Your task to perform on an android device: delete a single message in the gmail app Image 0: 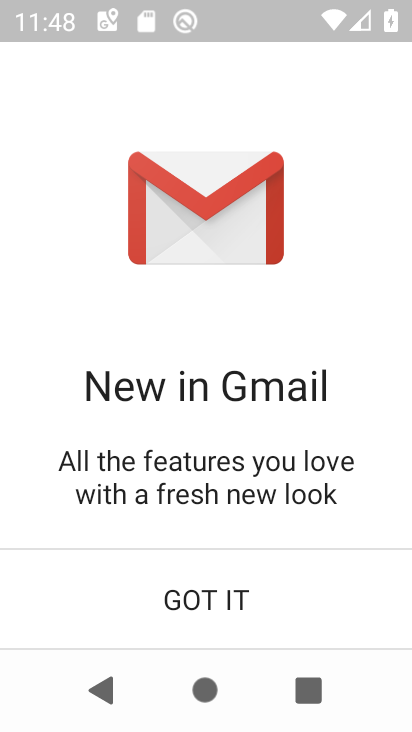
Step 0: click (188, 595)
Your task to perform on an android device: delete a single message in the gmail app Image 1: 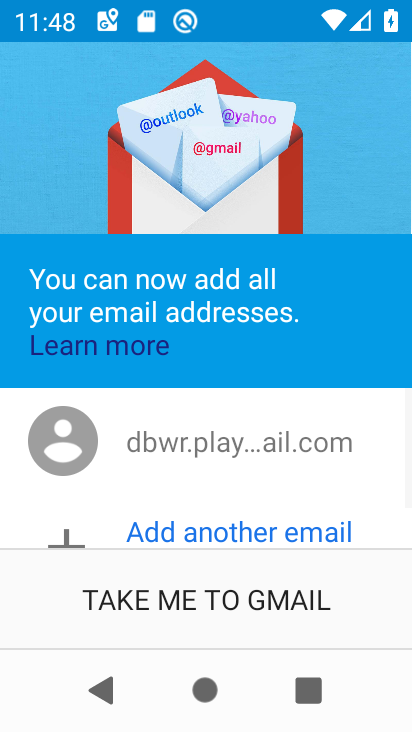
Step 1: click (204, 596)
Your task to perform on an android device: delete a single message in the gmail app Image 2: 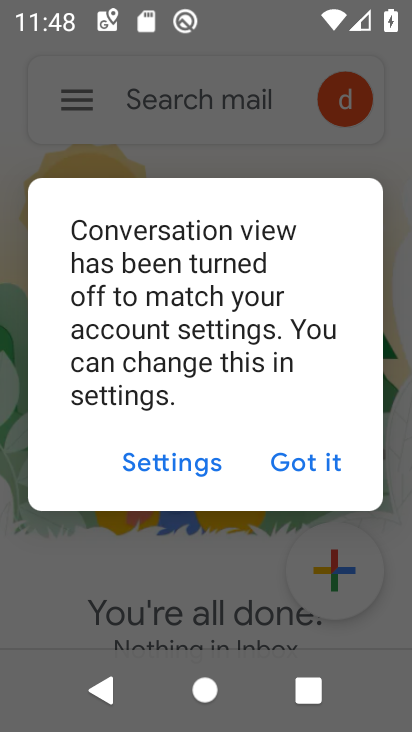
Step 2: click (296, 455)
Your task to perform on an android device: delete a single message in the gmail app Image 3: 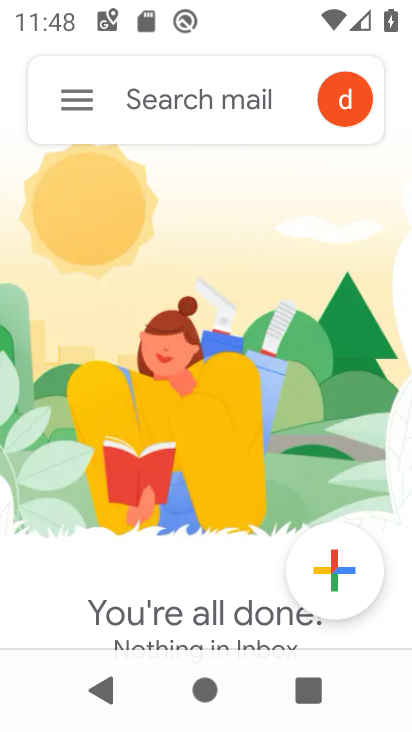
Step 3: click (74, 97)
Your task to perform on an android device: delete a single message in the gmail app Image 4: 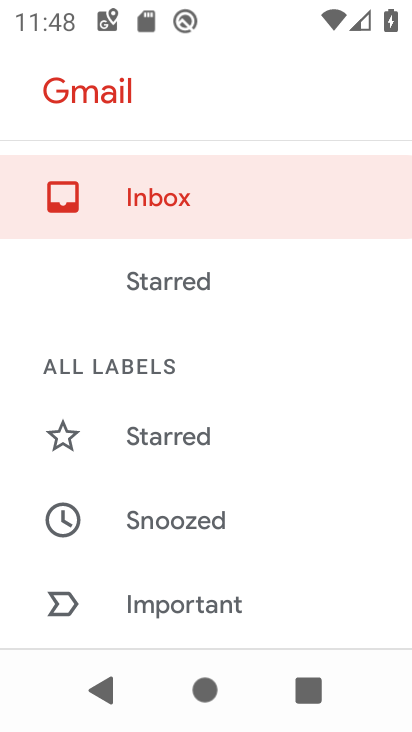
Step 4: drag from (228, 526) to (177, 269)
Your task to perform on an android device: delete a single message in the gmail app Image 5: 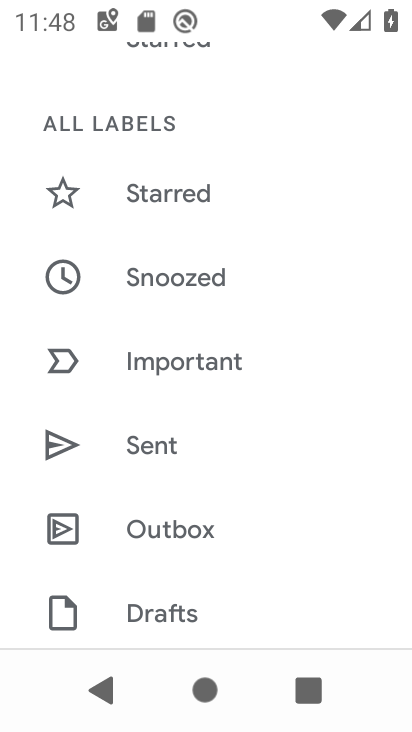
Step 5: drag from (151, 574) to (133, 190)
Your task to perform on an android device: delete a single message in the gmail app Image 6: 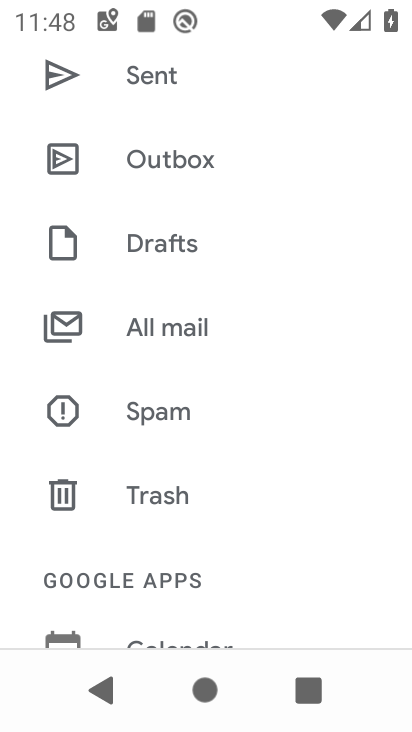
Step 6: drag from (270, 439) to (234, 74)
Your task to perform on an android device: delete a single message in the gmail app Image 7: 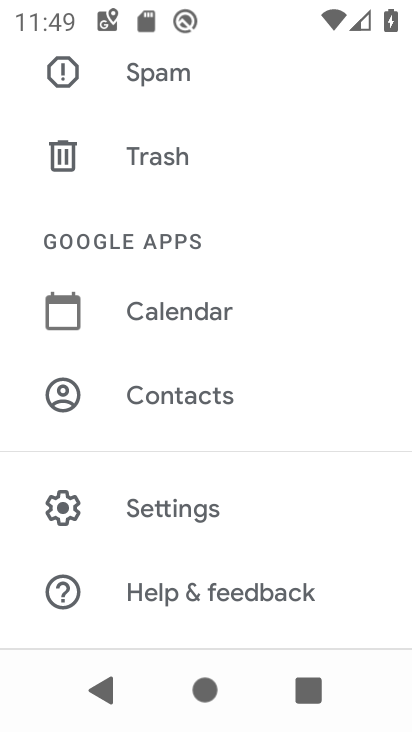
Step 7: drag from (256, 405) to (274, 710)
Your task to perform on an android device: delete a single message in the gmail app Image 8: 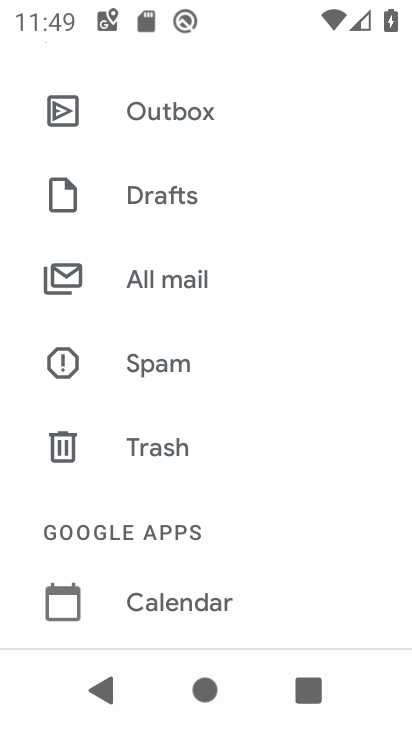
Step 8: click (163, 288)
Your task to perform on an android device: delete a single message in the gmail app Image 9: 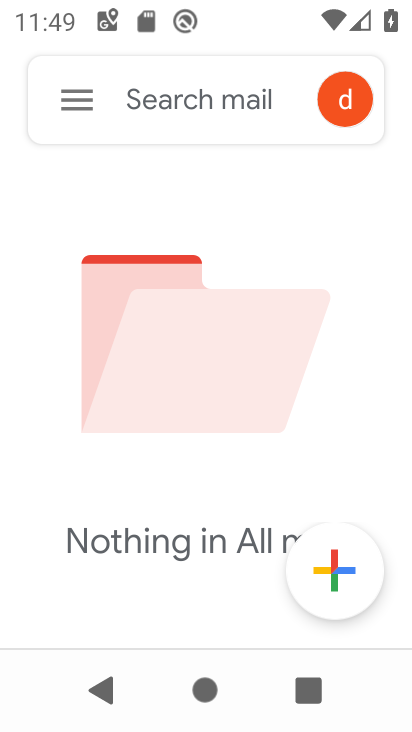
Step 9: task complete